Your task to perform on an android device: Search for logitech g pro on target.com, select the first entry, add it to the cart, then select checkout. Image 0: 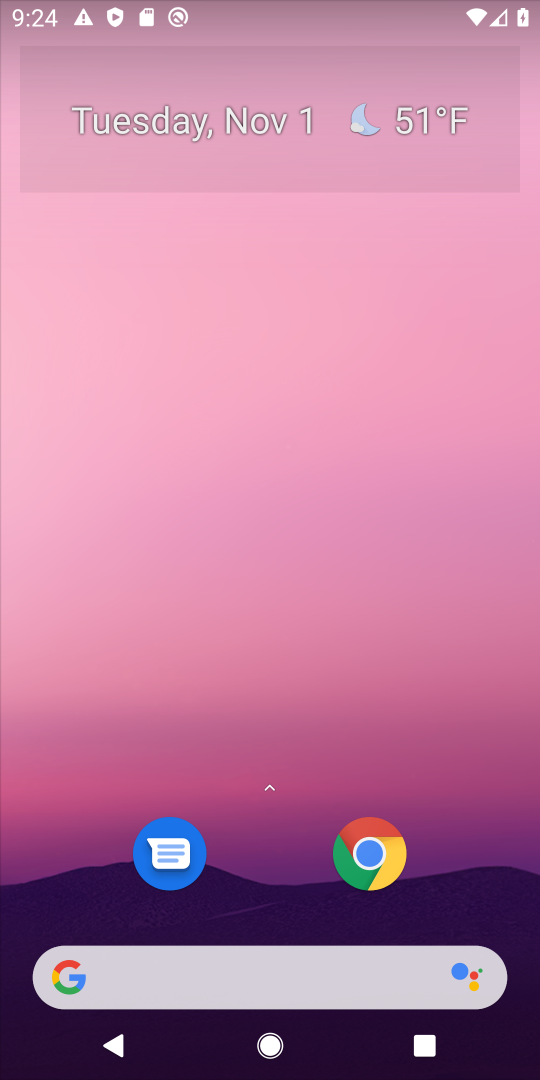
Step 0: click (145, 995)
Your task to perform on an android device: Search for logitech g pro on target.com, select the first entry, add it to the cart, then select checkout. Image 1: 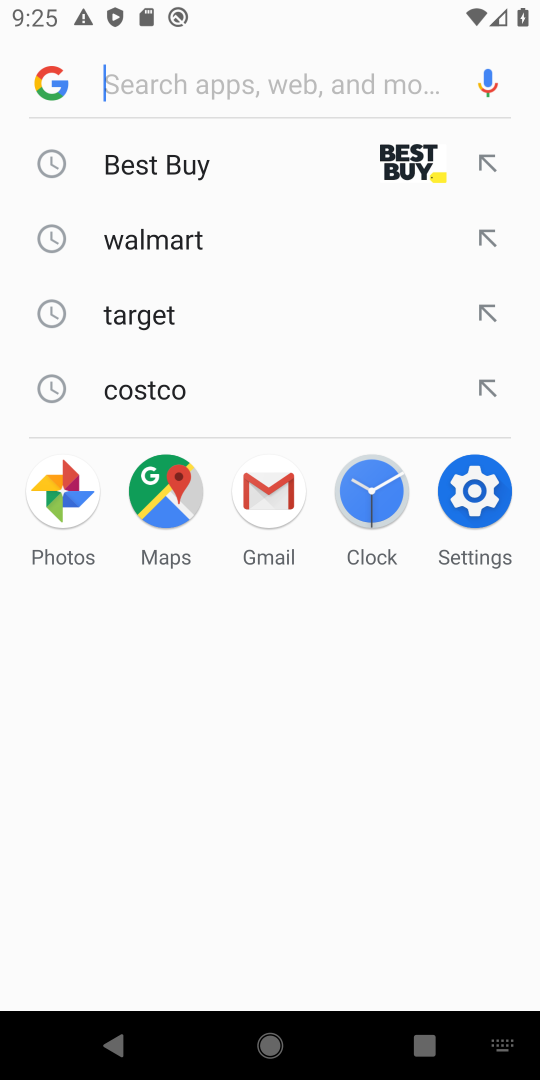
Step 1: click (222, 328)
Your task to perform on an android device: Search for logitech g pro on target.com, select the first entry, add it to the cart, then select checkout. Image 2: 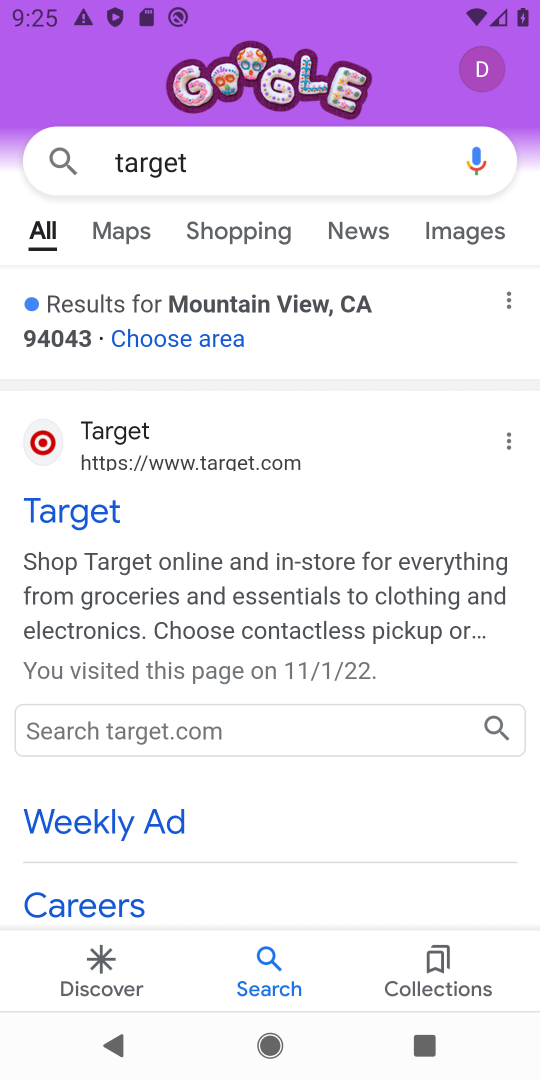
Step 2: click (86, 497)
Your task to perform on an android device: Search for logitech g pro on target.com, select the first entry, add it to the cart, then select checkout. Image 3: 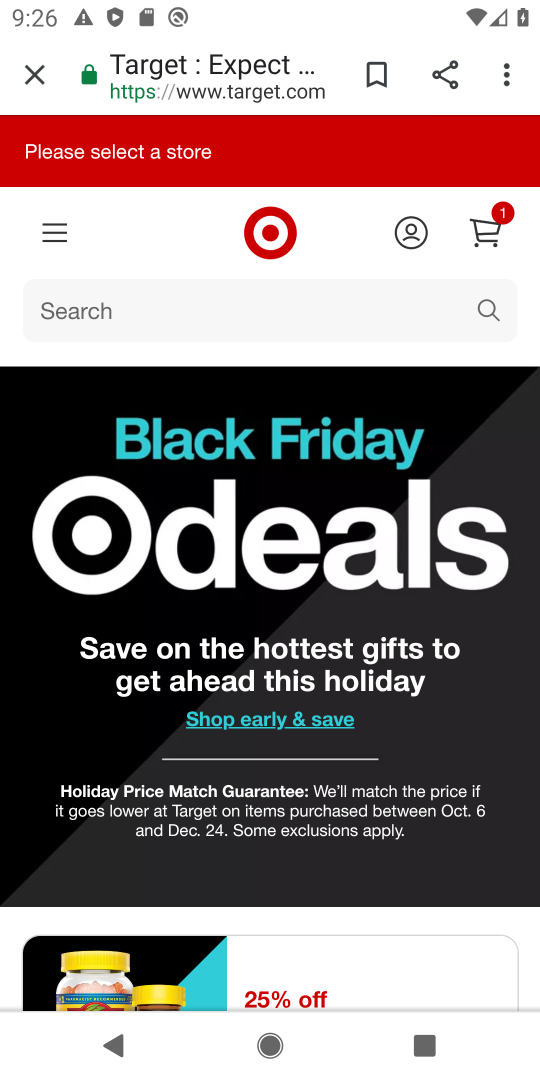
Step 3: click (434, 325)
Your task to perform on an android device: Search for logitech g pro on target.com, select the first entry, add it to the cart, then select checkout. Image 4: 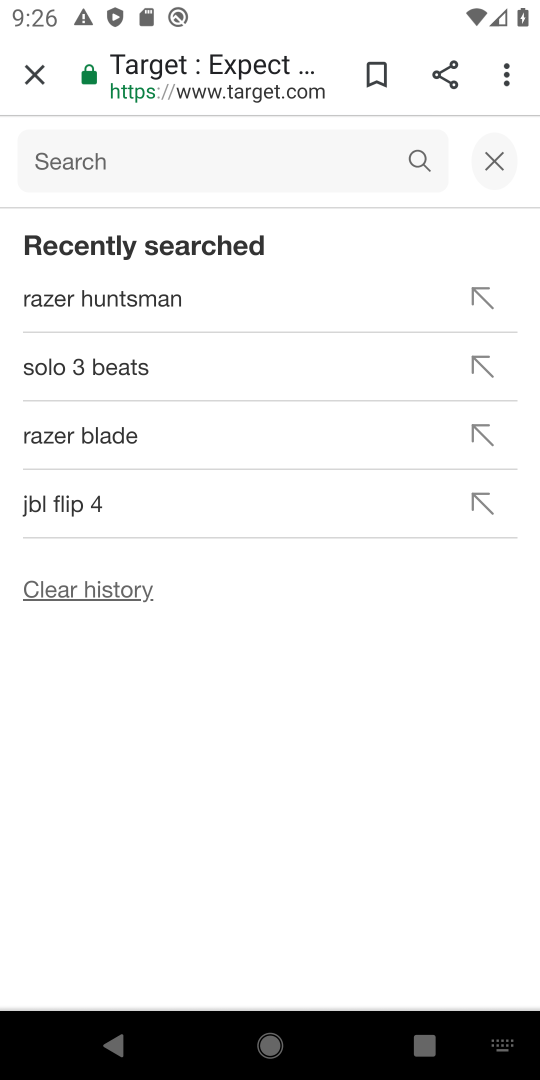
Step 4: type "logitech gpro"
Your task to perform on an android device: Search for logitech g pro on target.com, select the first entry, add it to the cart, then select checkout. Image 5: 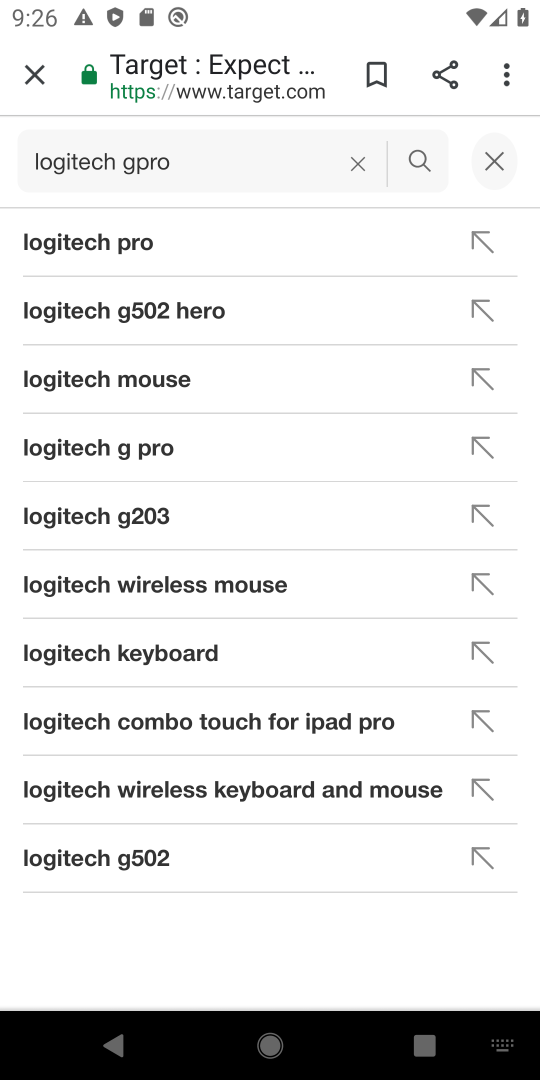
Step 5: click (280, 230)
Your task to perform on an android device: Search for logitech g pro on target.com, select the first entry, add it to the cart, then select checkout. Image 6: 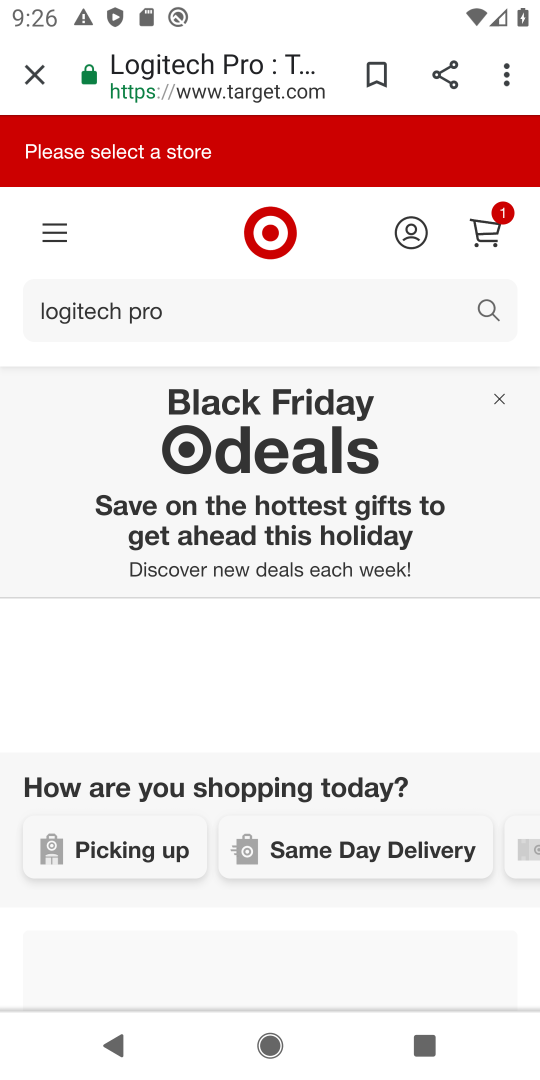
Step 6: drag from (223, 654) to (214, 374)
Your task to perform on an android device: Search for logitech g pro on target.com, select the first entry, add it to the cart, then select checkout. Image 7: 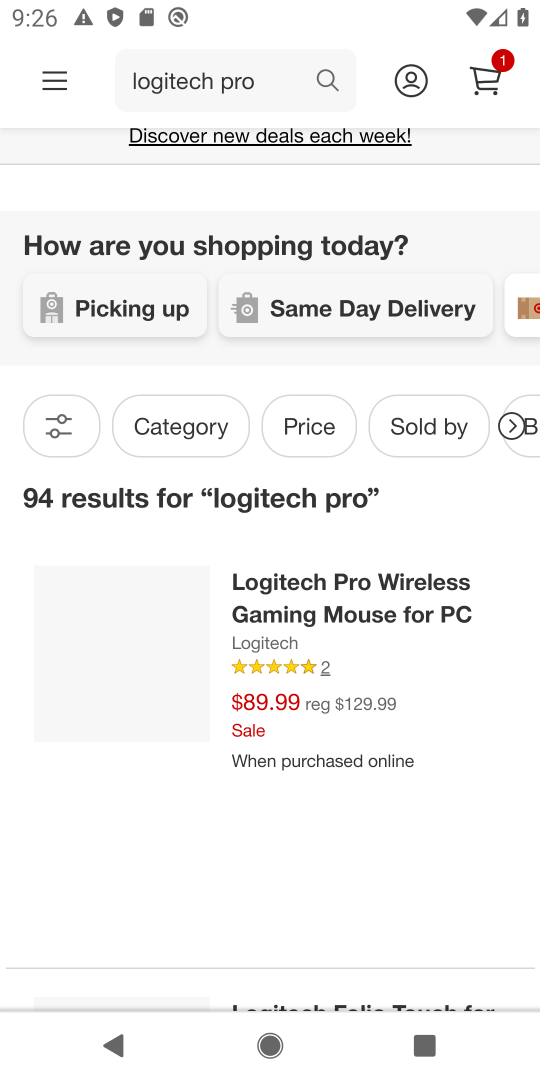
Step 7: drag from (242, 887) to (245, 478)
Your task to perform on an android device: Search for logitech g pro on target.com, select the first entry, add it to the cart, then select checkout. Image 8: 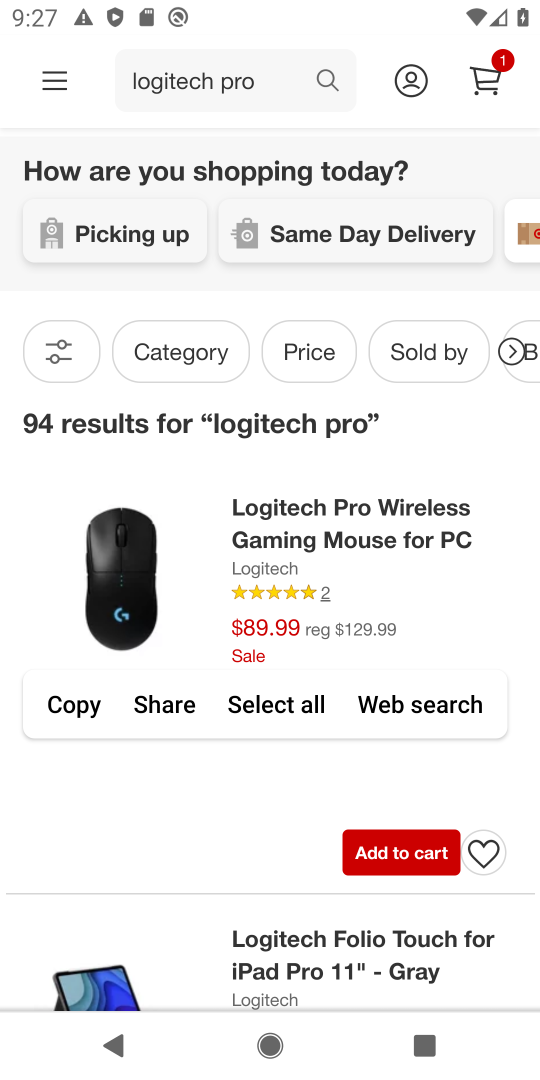
Step 8: click (433, 862)
Your task to perform on an android device: Search for logitech g pro on target.com, select the first entry, add it to the cart, then select checkout. Image 9: 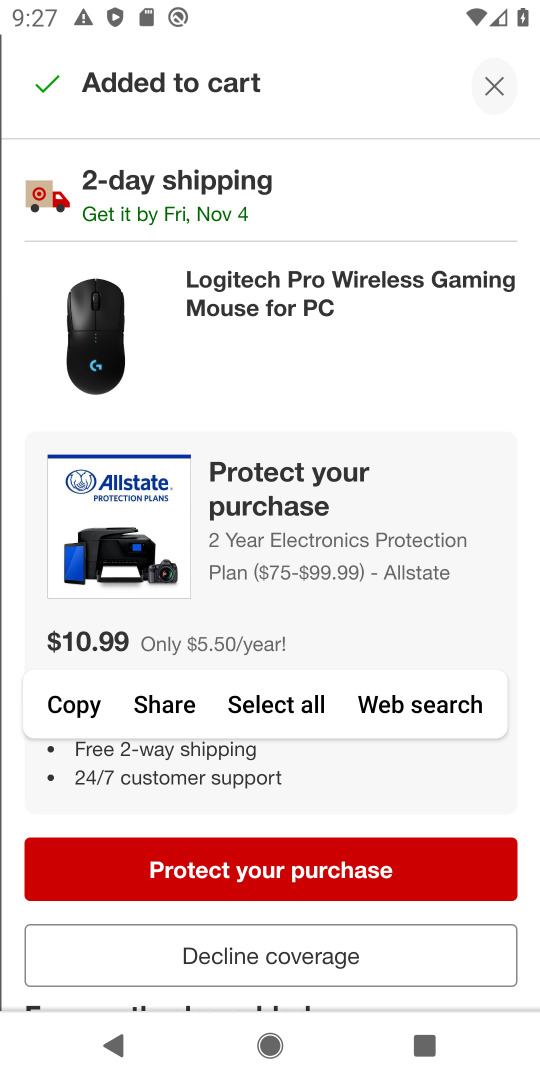
Step 9: task complete